Your task to perform on an android device: Open CNN.com Image 0: 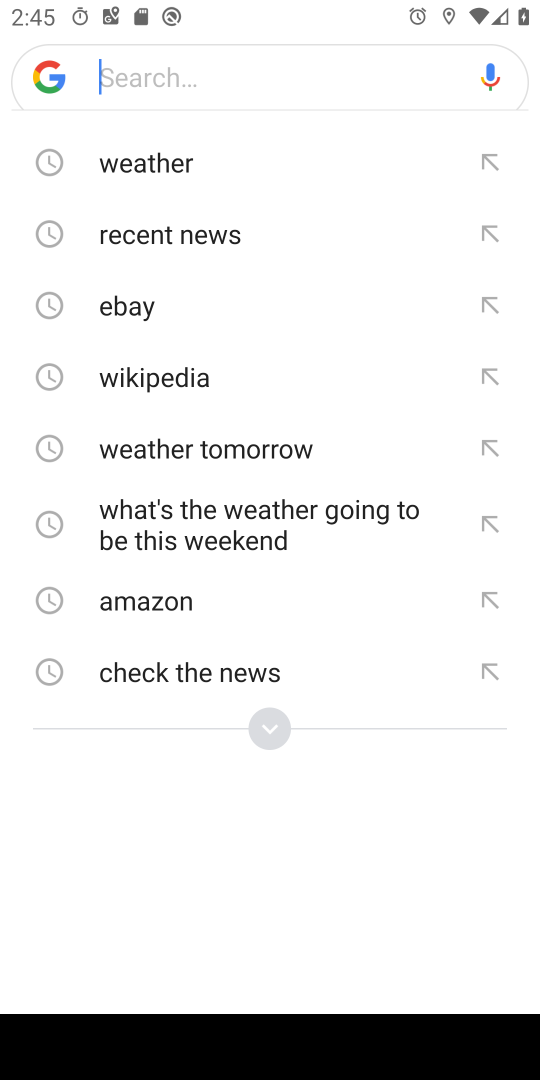
Step 0: press back button
Your task to perform on an android device: Open CNN.com Image 1: 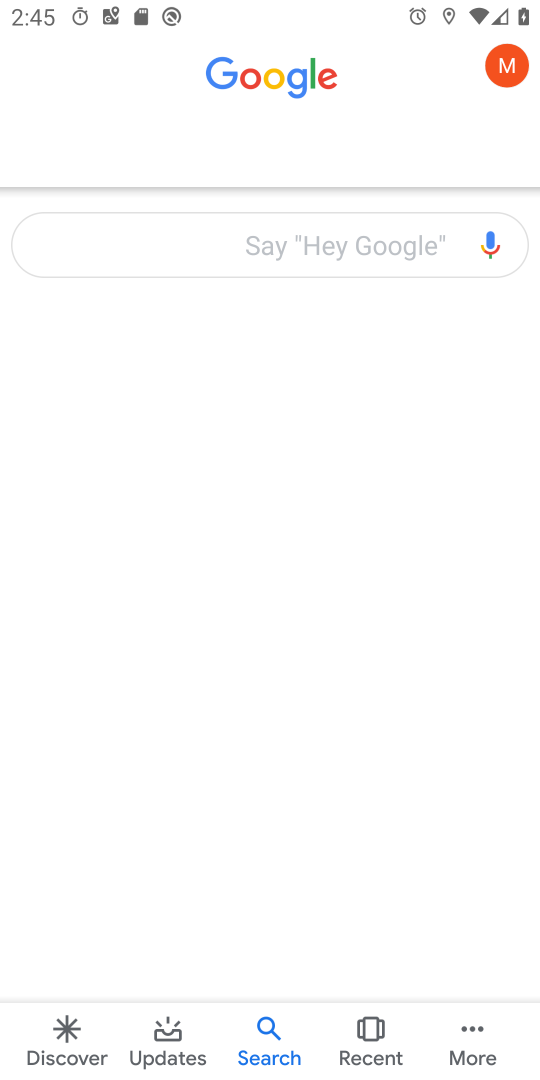
Step 1: press back button
Your task to perform on an android device: Open CNN.com Image 2: 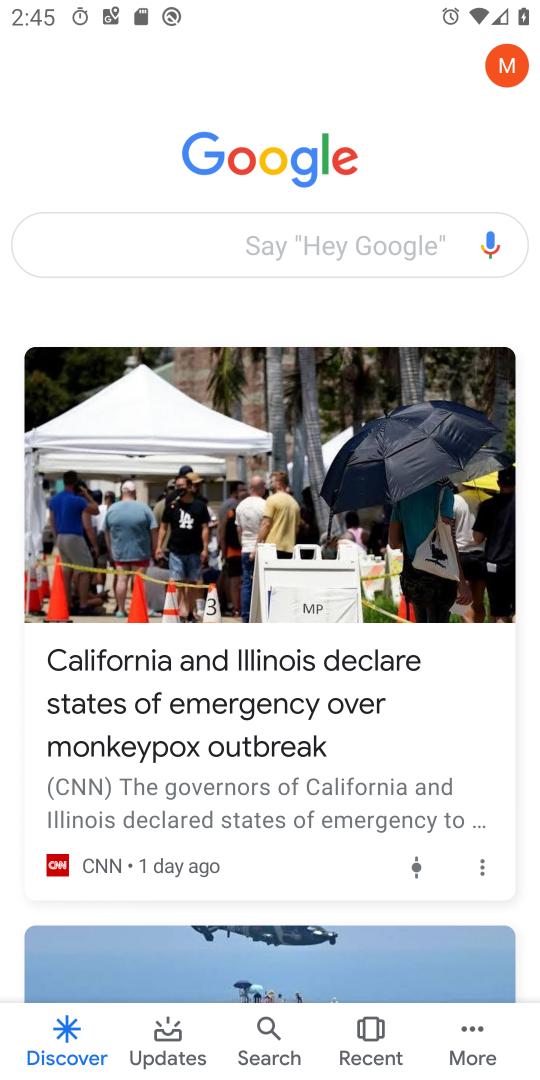
Step 2: press back button
Your task to perform on an android device: Open CNN.com Image 3: 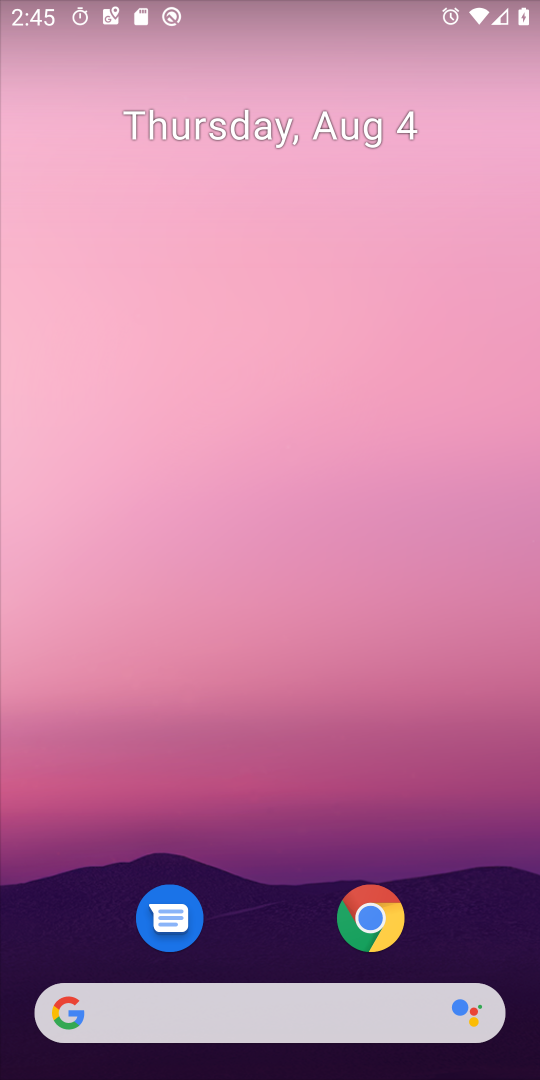
Step 3: click (380, 937)
Your task to perform on an android device: Open CNN.com Image 4: 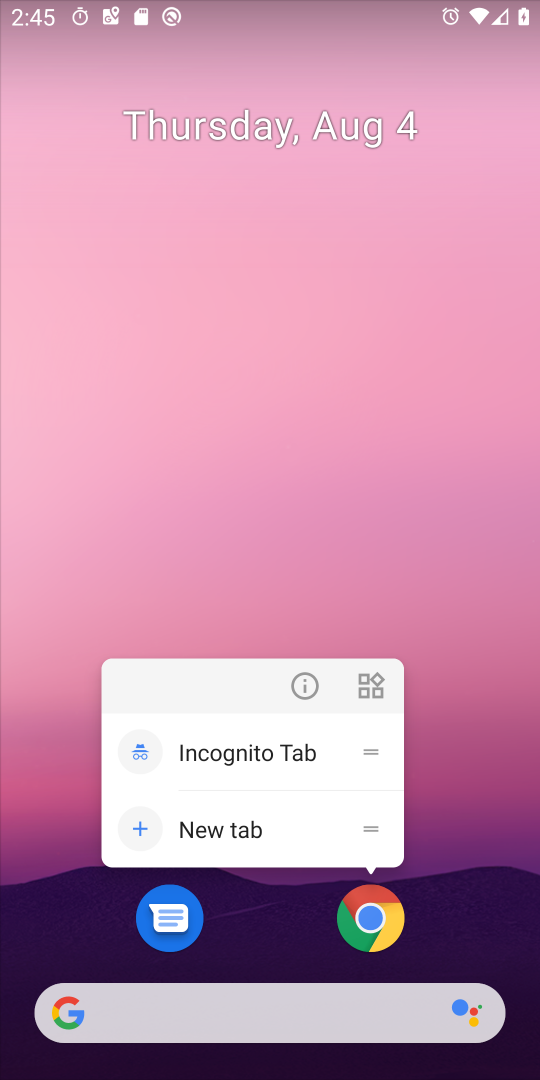
Step 4: click (371, 891)
Your task to perform on an android device: Open CNN.com Image 5: 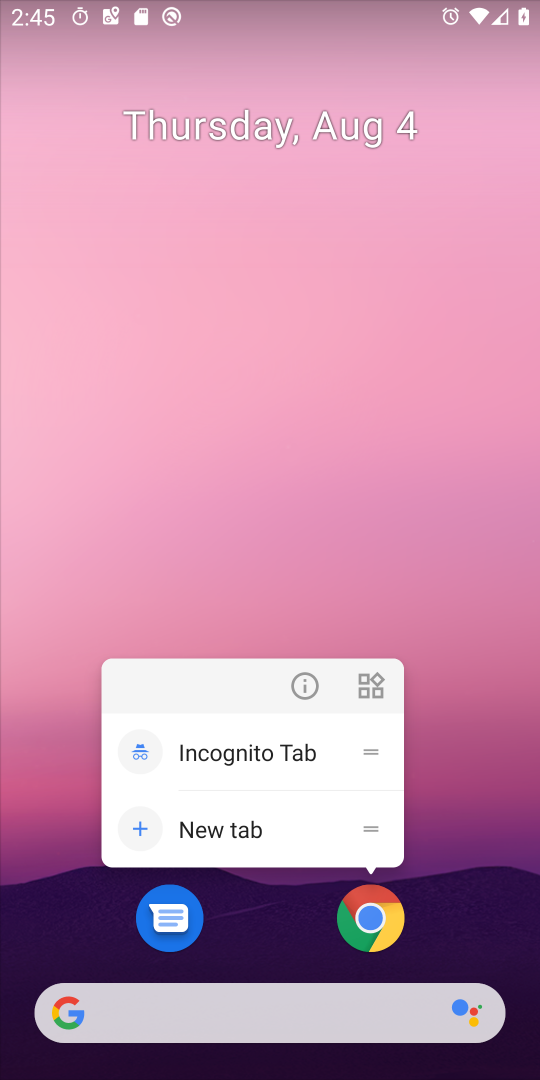
Step 5: click (371, 920)
Your task to perform on an android device: Open CNN.com Image 6: 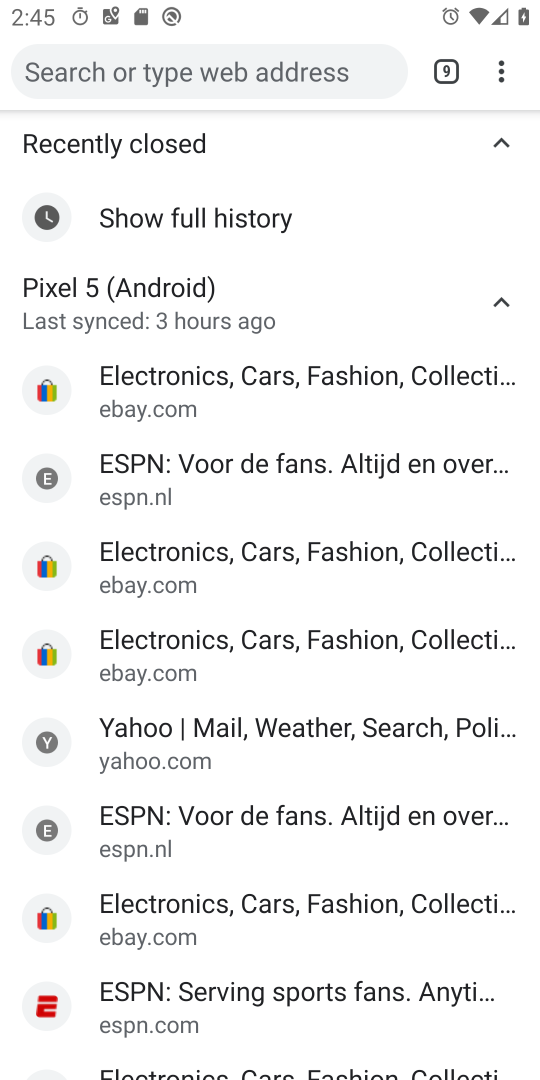
Step 6: click (428, 78)
Your task to perform on an android device: Open CNN.com Image 7: 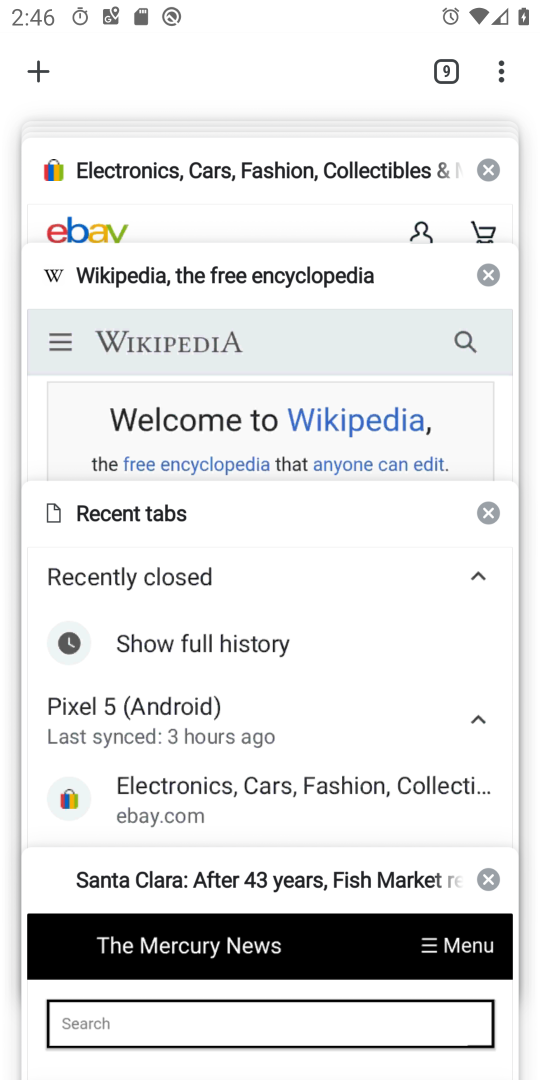
Step 7: click (24, 59)
Your task to perform on an android device: Open CNN.com Image 8: 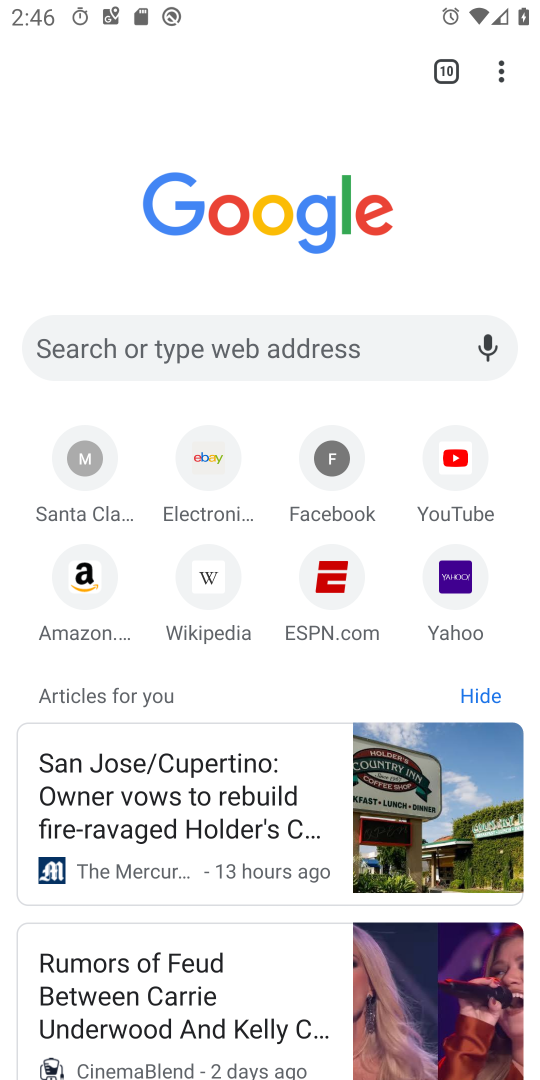
Step 8: click (208, 359)
Your task to perform on an android device: Open CNN.com Image 9: 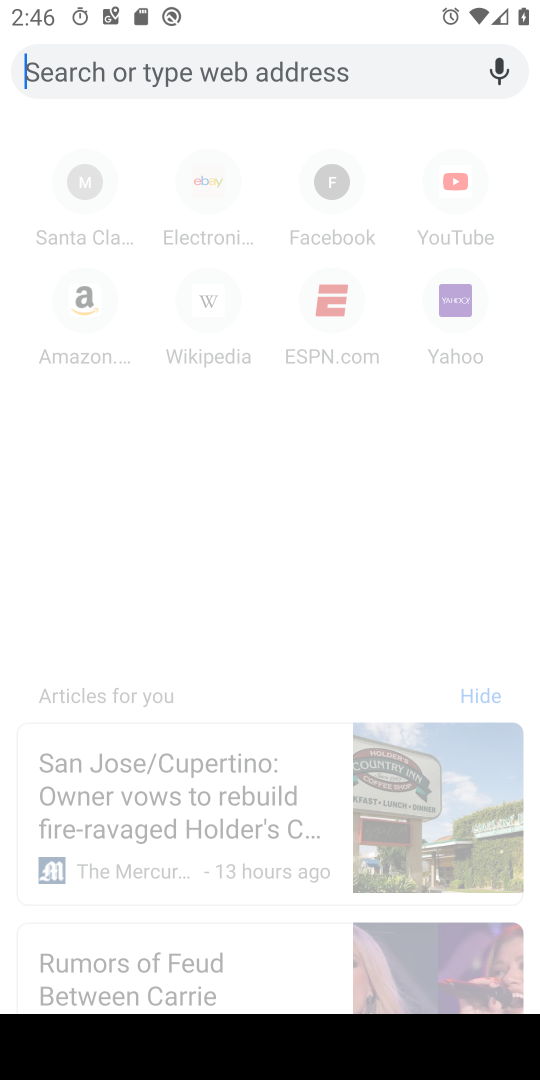
Step 9: type "CNN.com"
Your task to perform on an android device: Open CNN.com Image 10: 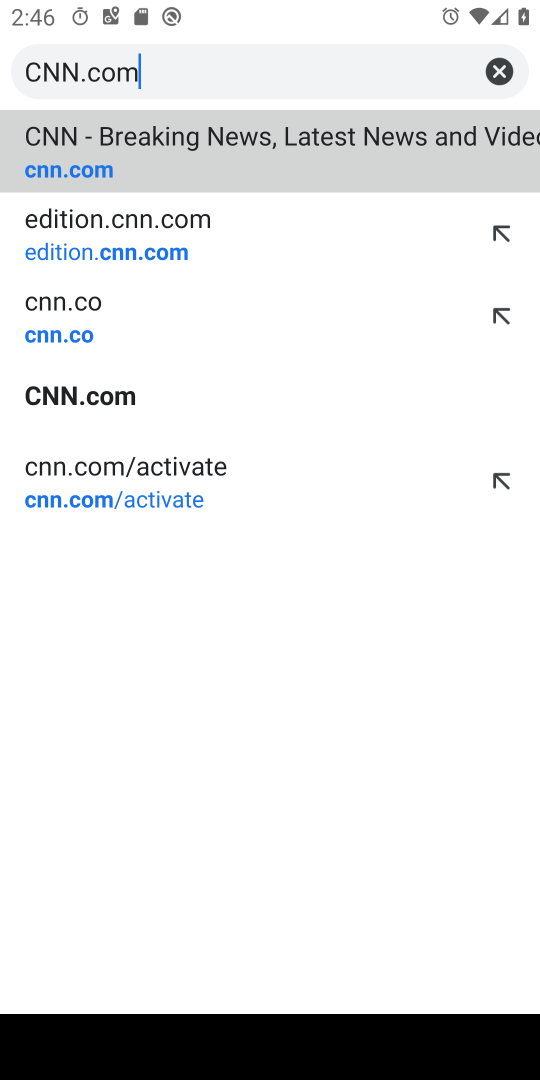
Step 10: type ""
Your task to perform on an android device: Open CNN.com Image 11: 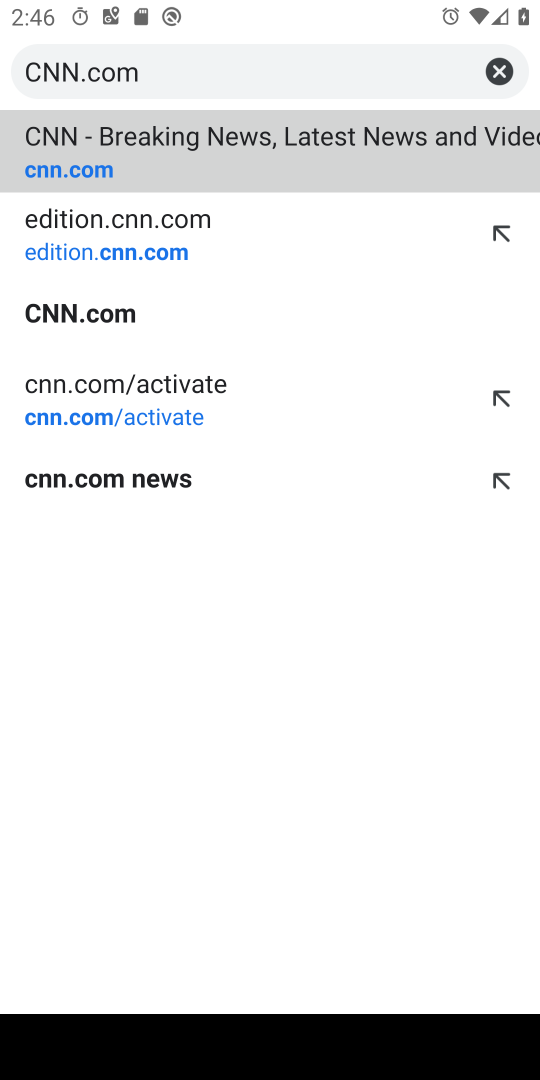
Step 11: click (150, 143)
Your task to perform on an android device: Open CNN.com Image 12: 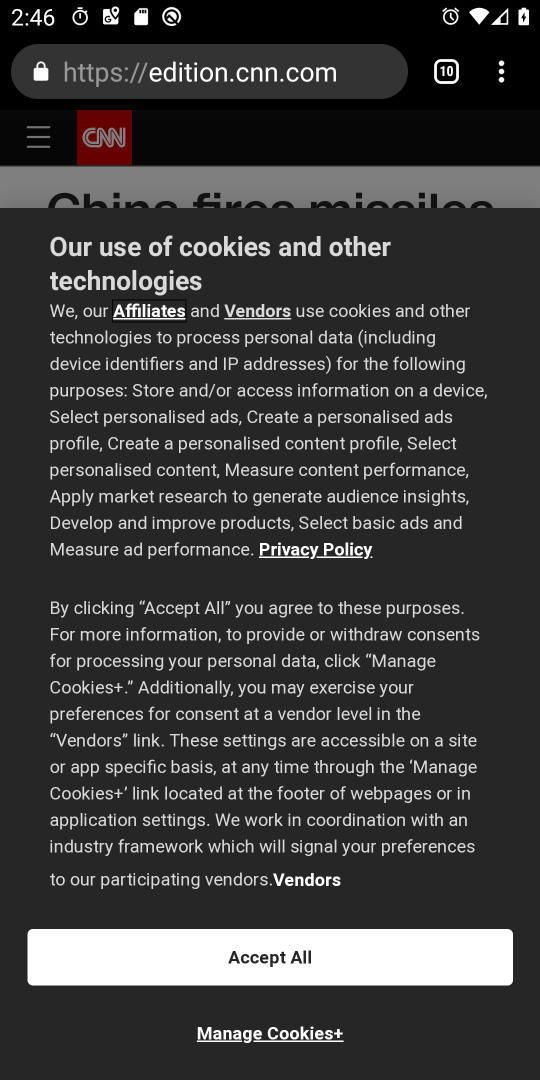
Step 12: task complete